Your task to perform on an android device: check storage Image 0: 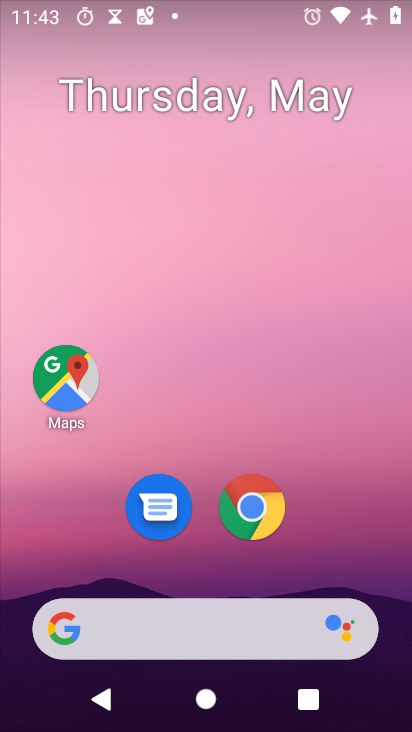
Step 0: drag from (321, 528) to (239, 8)
Your task to perform on an android device: check storage Image 1: 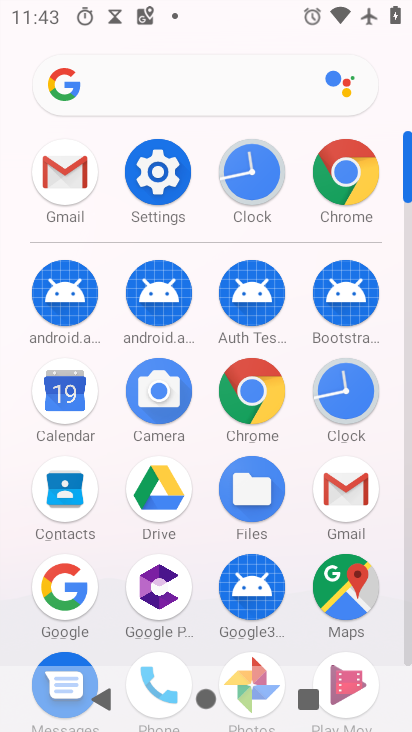
Step 1: click (154, 170)
Your task to perform on an android device: check storage Image 2: 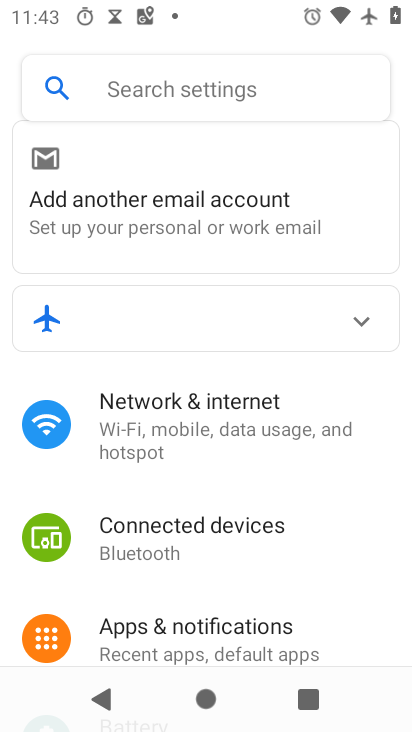
Step 2: drag from (245, 561) to (266, 162)
Your task to perform on an android device: check storage Image 3: 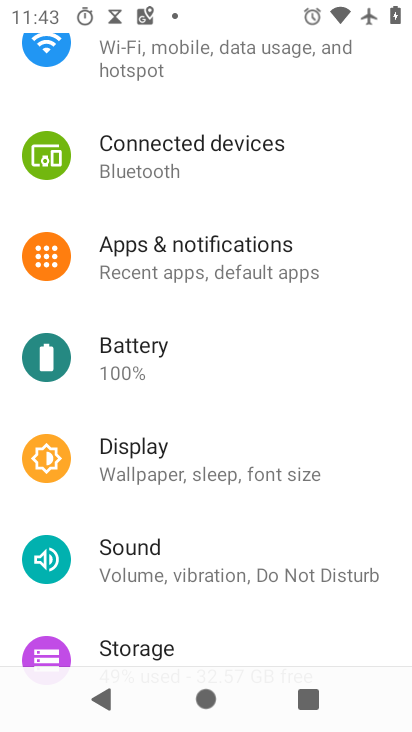
Step 3: drag from (228, 530) to (266, 171)
Your task to perform on an android device: check storage Image 4: 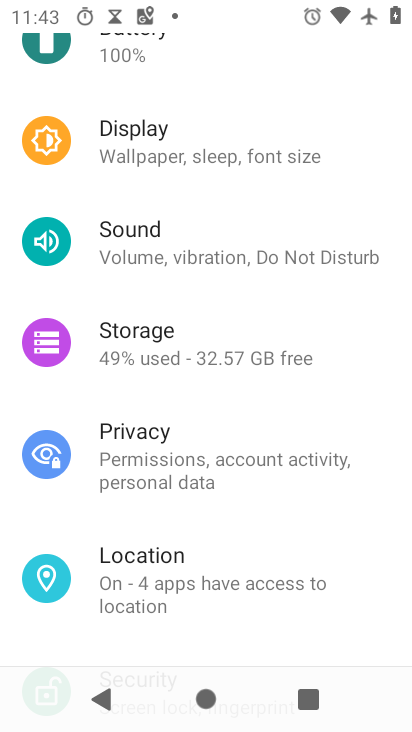
Step 4: drag from (194, 573) to (259, 158)
Your task to perform on an android device: check storage Image 5: 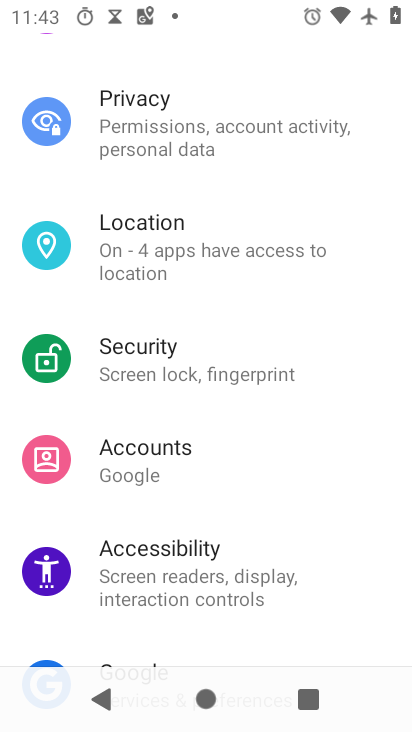
Step 5: drag from (198, 473) to (198, 171)
Your task to perform on an android device: check storage Image 6: 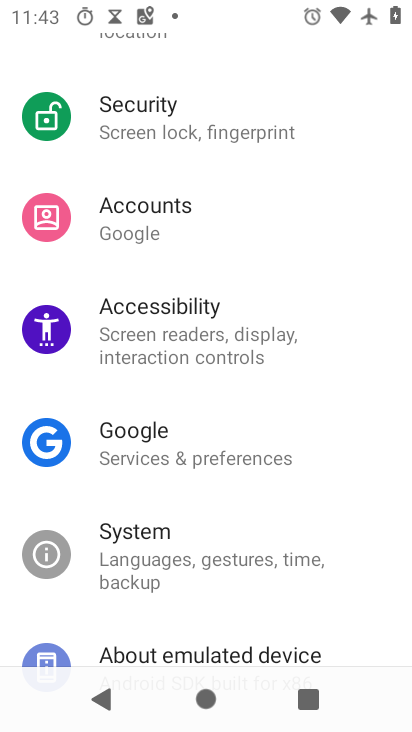
Step 6: drag from (198, 540) to (245, 139)
Your task to perform on an android device: check storage Image 7: 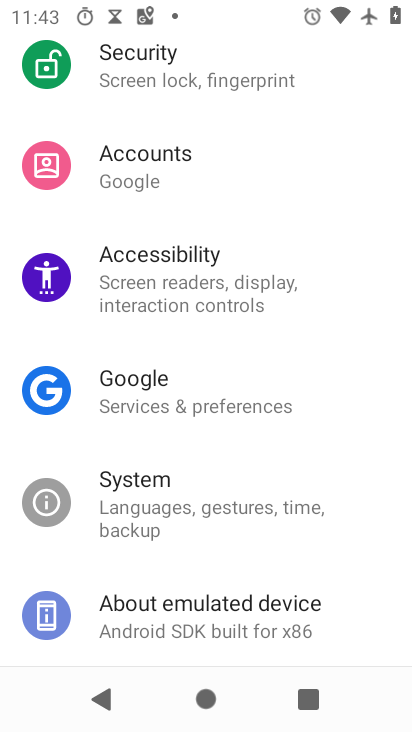
Step 7: drag from (232, 154) to (218, 549)
Your task to perform on an android device: check storage Image 8: 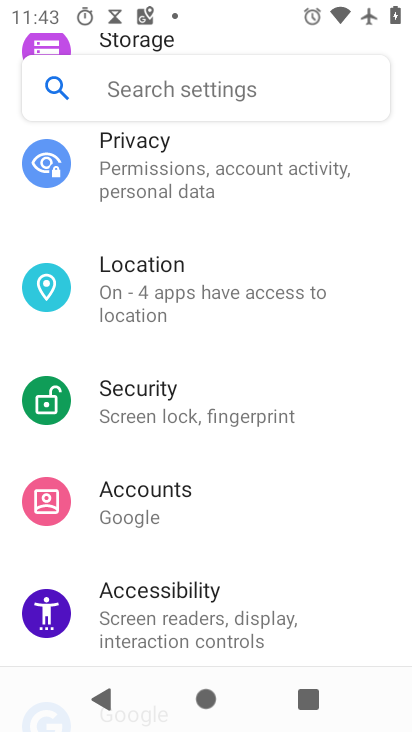
Step 8: drag from (246, 259) to (237, 624)
Your task to perform on an android device: check storage Image 9: 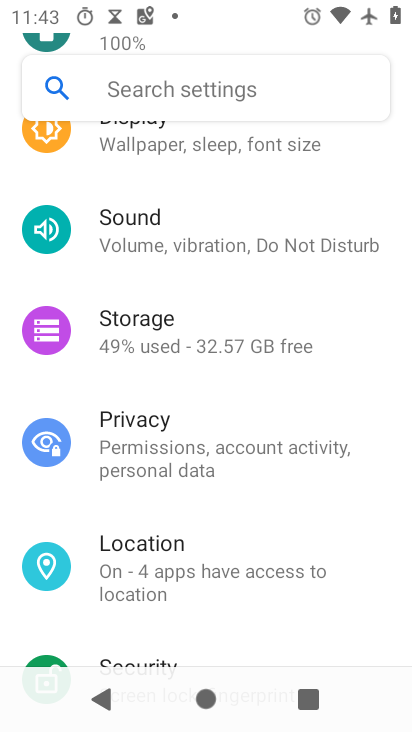
Step 9: click (166, 330)
Your task to perform on an android device: check storage Image 10: 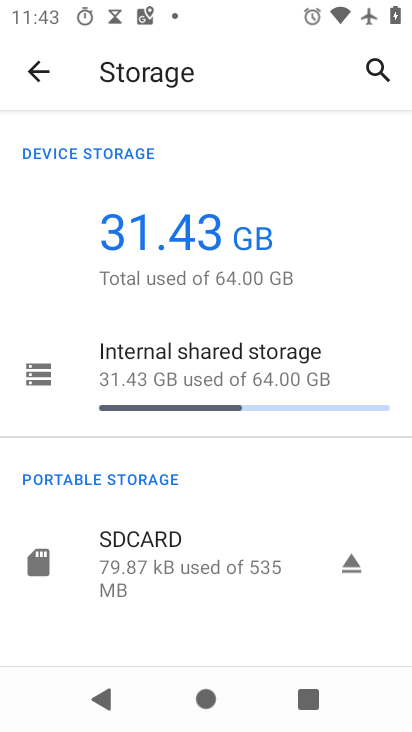
Step 10: task complete